Your task to perform on an android device: turn on translation in the chrome app Image 0: 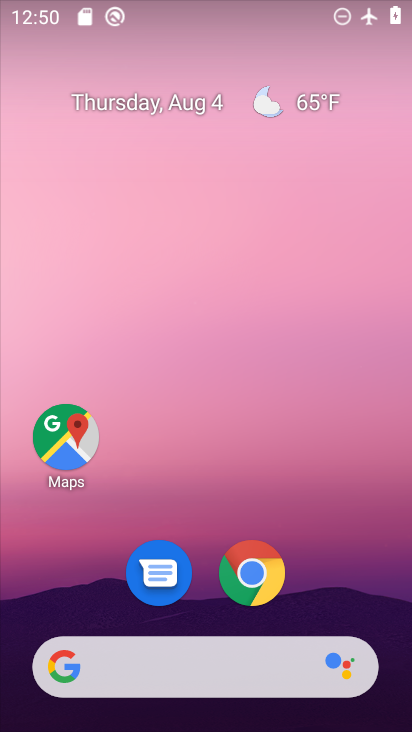
Step 0: drag from (359, 576) to (403, 77)
Your task to perform on an android device: turn on translation in the chrome app Image 1: 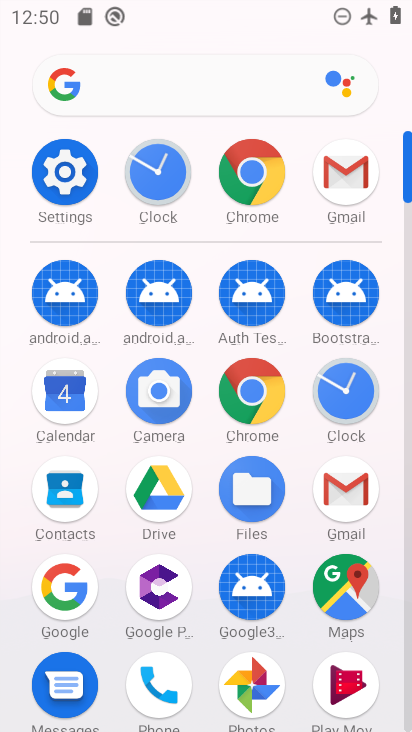
Step 1: click (269, 171)
Your task to perform on an android device: turn on translation in the chrome app Image 2: 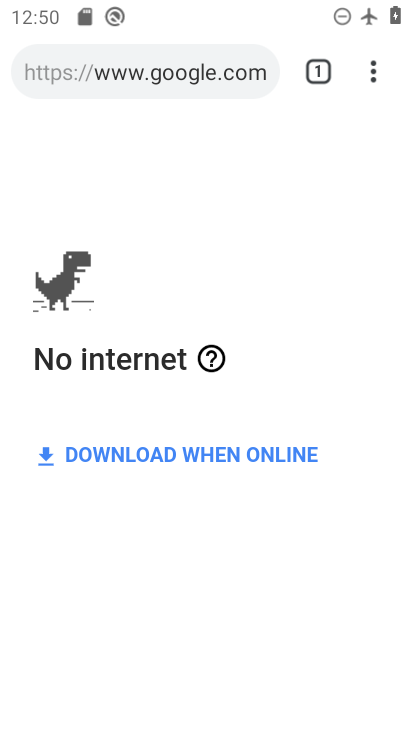
Step 2: drag from (373, 77) to (177, 585)
Your task to perform on an android device: turn on translation in the chrome app Image 3: 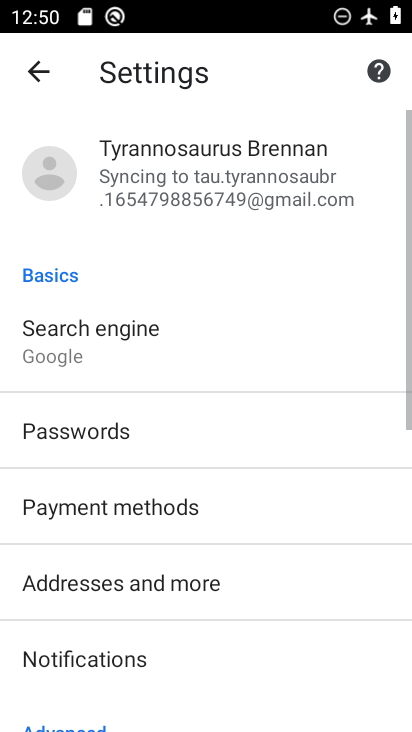
Step 3: drag from (225, 602) to (321, 139)
Your task to perform on an android device: turn on translation in the chrome app Image 4: 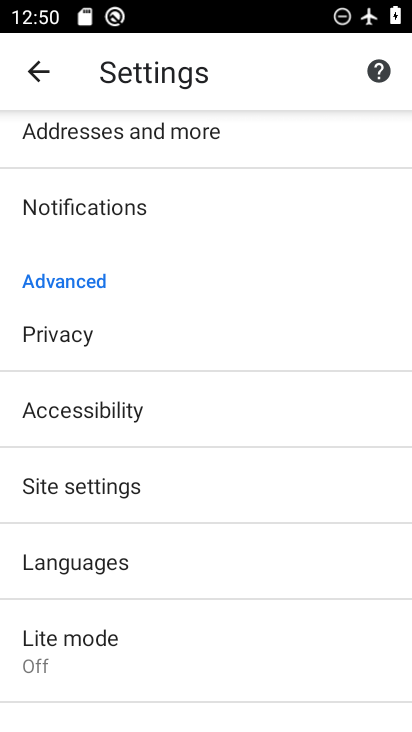
Step 4: click (99, 585)
Your task to perform on an android device: turn on translation in the chrome app Image 5: 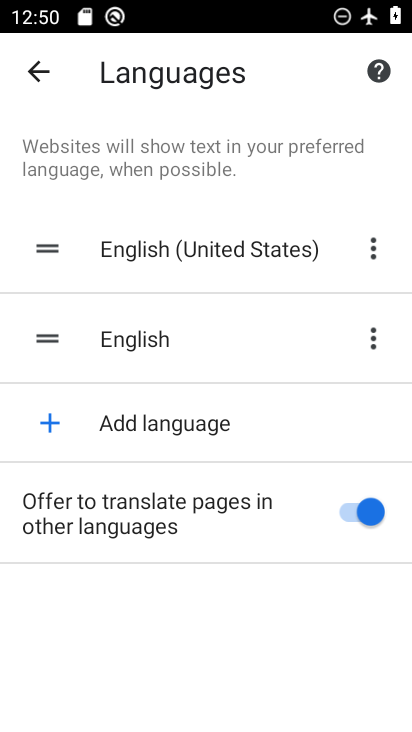
Step 5: task complete